Your task to perform on an android device: check data usage Image 0: 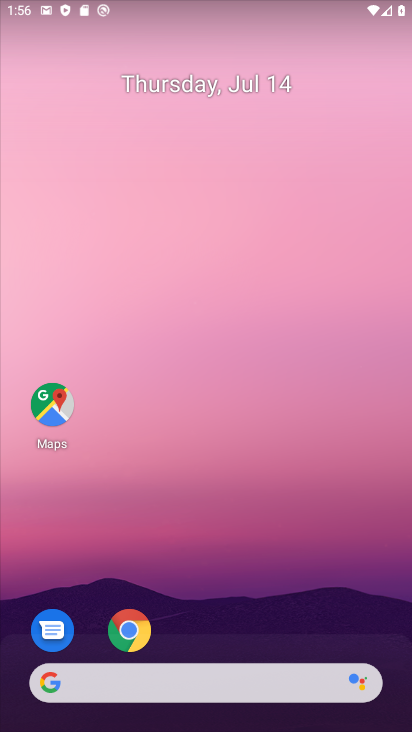
Step 0: drag from (211, 666) to (278, 134)
Your task to perform on an android device: check data usage Image 1: 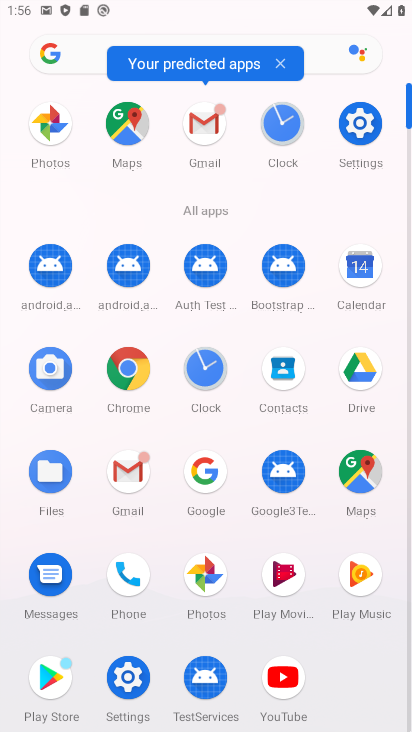
Step 1: click (144, 675)
Your task to perform on an android device: check data usage Image 2: 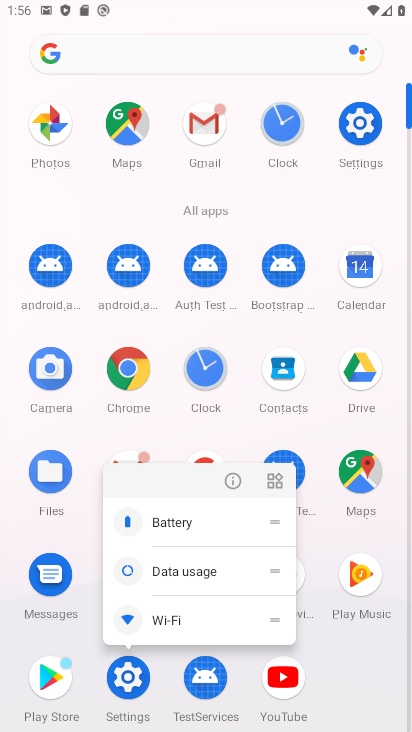
Step 2: click (144, 675)
Your task to perform on an android device: check data usage Image 3: 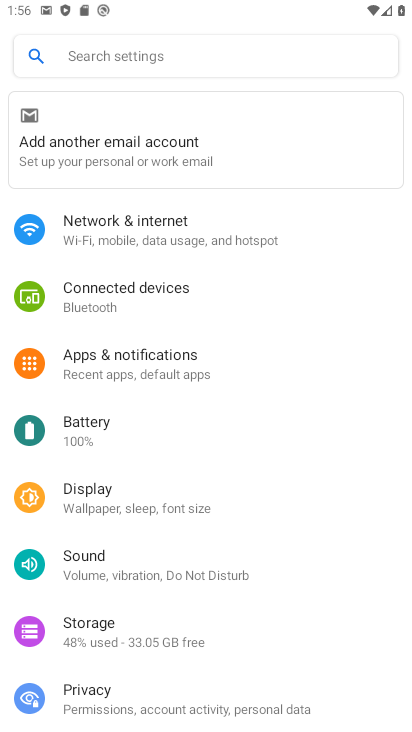
Step 3: click (182, 233)
Your task to perform on an android device: check data usage Image 4: 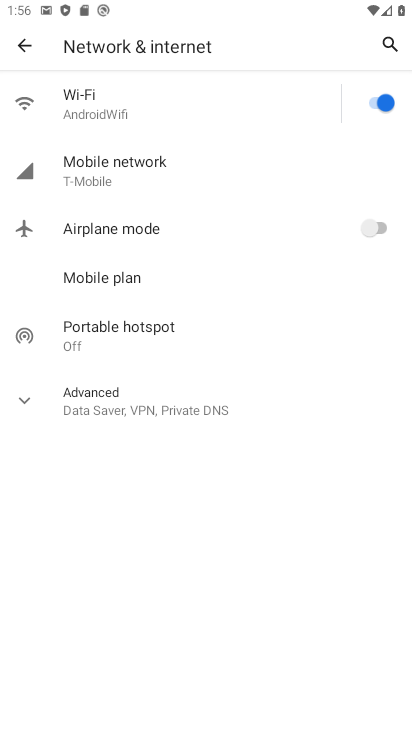
Step 4: click (163, 186)
Your task to perform on an android device: check data usage Image 5: 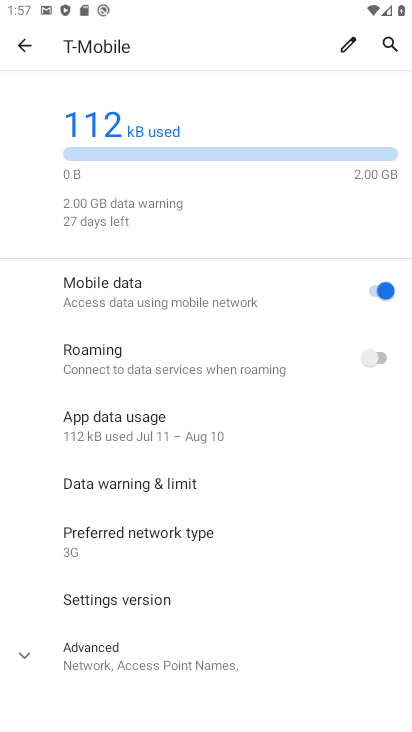
Step 5: click (204, 427)
Your task to perform on an android device: check data usage Image 6: 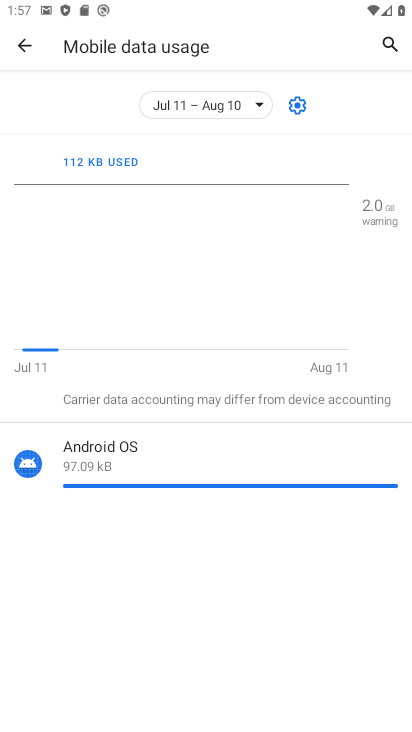
Step 6: task complete